Your task to perform on an android device: toggle priority inbox in the gmail app Image 0: 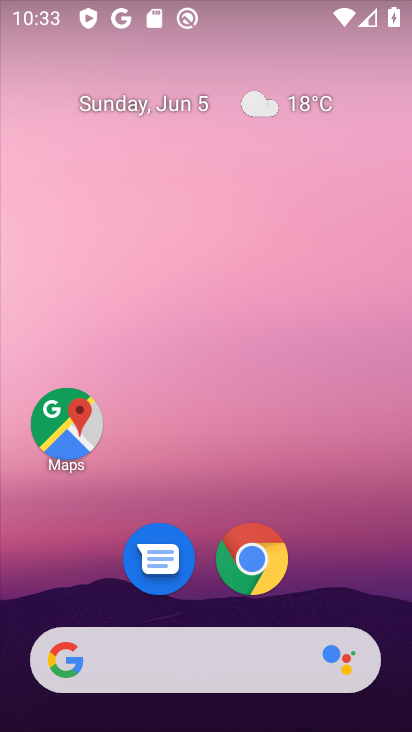
Step 0: drag from (269, 683) to (327, 26)
Your task to perform on an android device: toggle priority inbox in the gmail app Image 1: 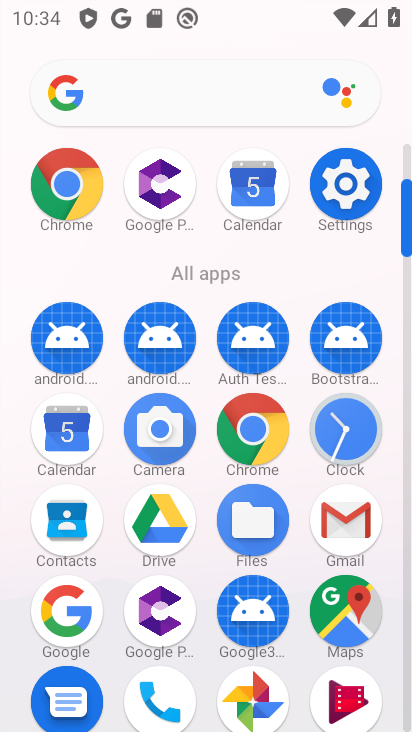
Step 1: click (341, 524)
Your task to perform on an android device: toggle priority inbox in the gmail app Image 2: 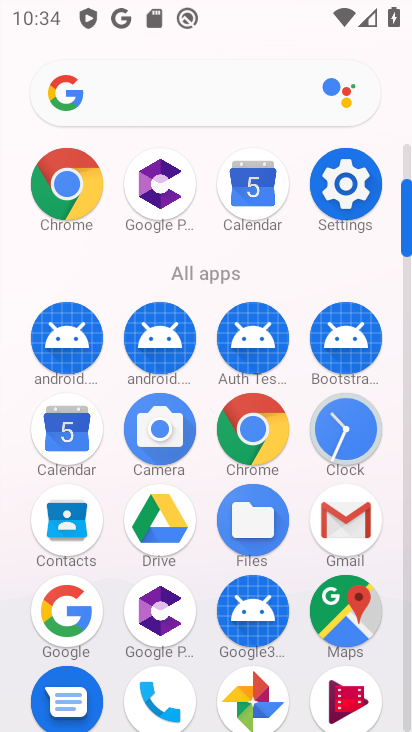
Step 2: click (340, 523)
Your task to perform on an android device: toggle priority inbox in the gmail app Image 3: 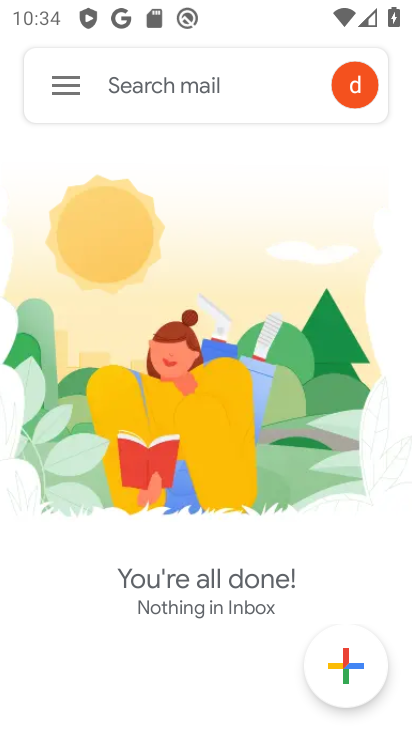
Step 3: click (72, 82)
Your task to perform on an android device: toggle priority inbox in the gmail app Image 4: 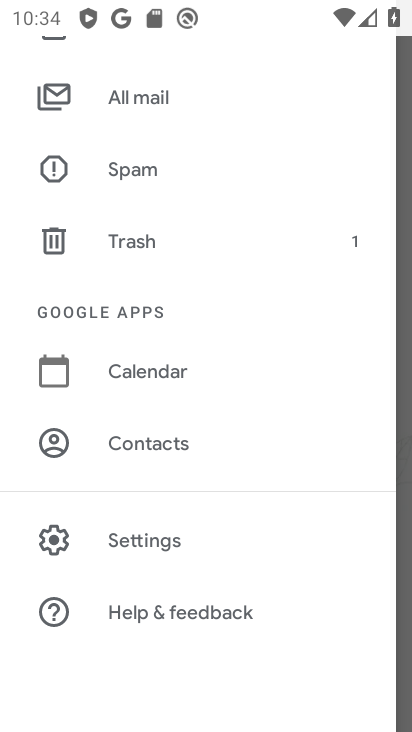
Step 4: click (143, 539)
Your task to perform on an android device: toggle priority inbox in the gmail app Image 5: 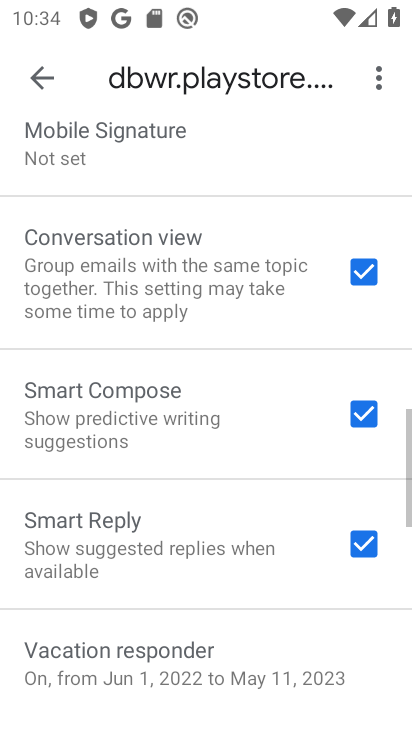
Step 5: drag from (122, 528) to (167, 45)
Your task to perform on an android device: toggle priority inbox in the gmail app Image 6: 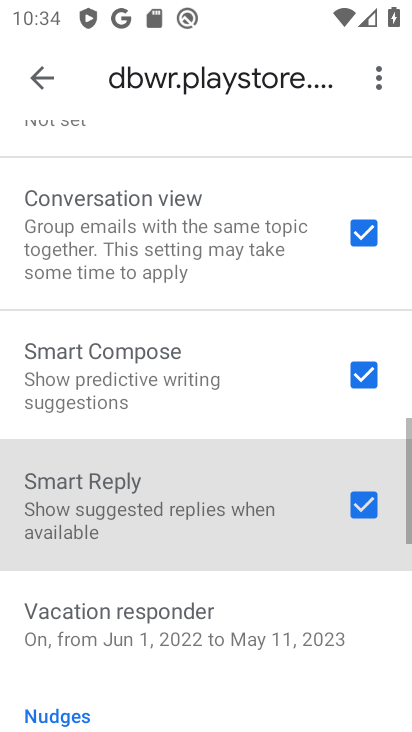
Step 6: drag from (139, 471) to (124, 161)
Your task to perform on an android device: toggle priority inbox in the gmail app Image 7: 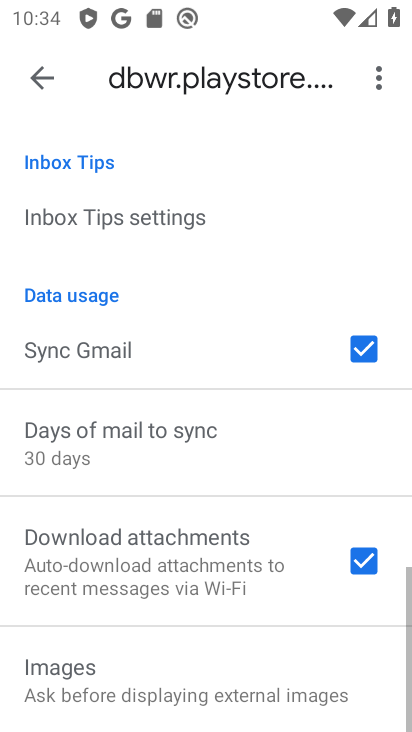
Step 7: drag from (88, 180) to (127, 723)
Your task to perform on an android device: toggle priority inbox in the gmail app Image 8: 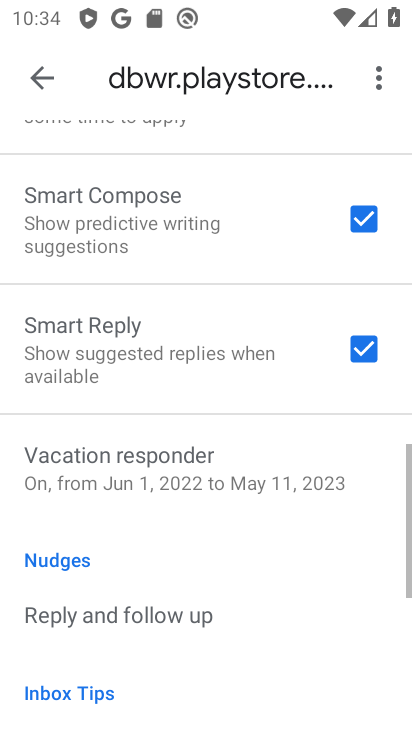
Step 8: drag from (145, 242) to (192, 502)
Your task to perform on an android device: toggle priority inbox in the gmail app Image 9: 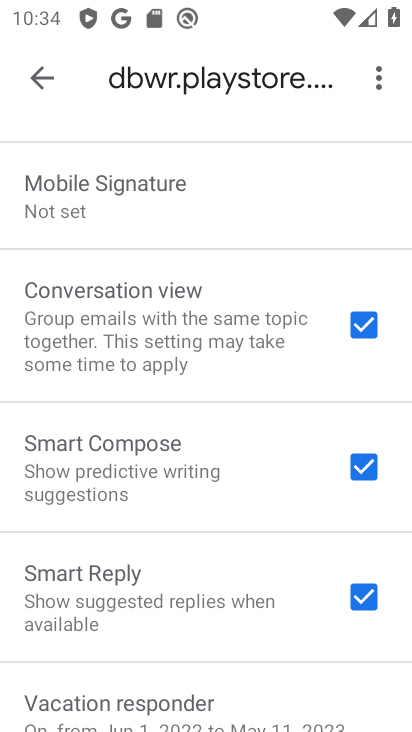
Step 9: drag from (103, 213) to (158, 492)
Your task to perform on an android device: toggle priority inbox in the gmail app Image 10: 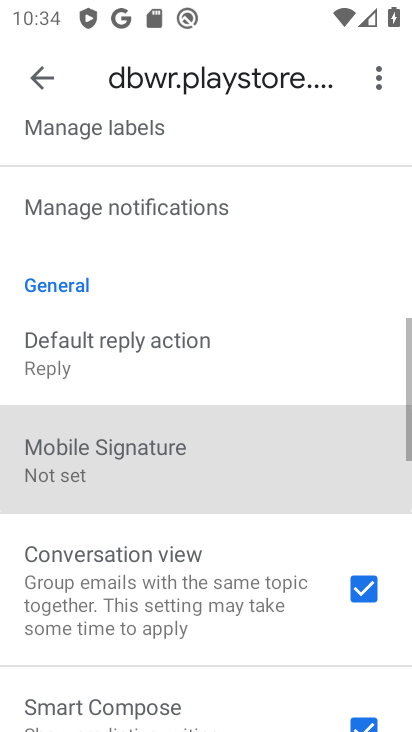
Step 10: drag from (167, 214) to (194, 572)
Your task to perform on an android device: toggle priority inbox in the gmail app Image 11: 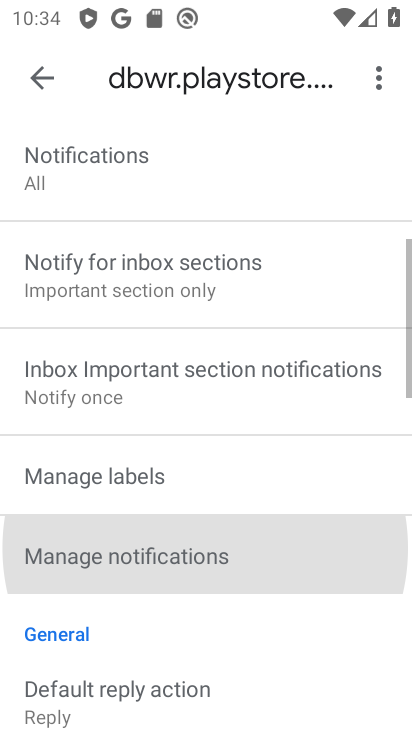
Step 11: drag from (150, 214) to (154, 528)
Your task to perform on an android device: toggle priority inbox in the gmail app Image 12: 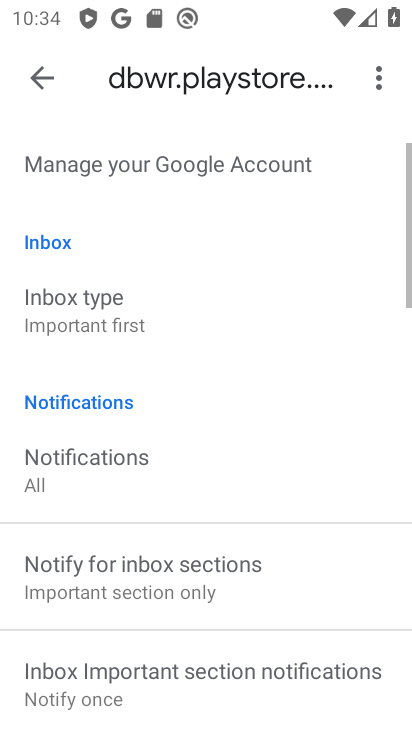
Step 12: click (67, 303)
Your task to perform on an android device: toggle priority inbox in the gmail app Image 13: 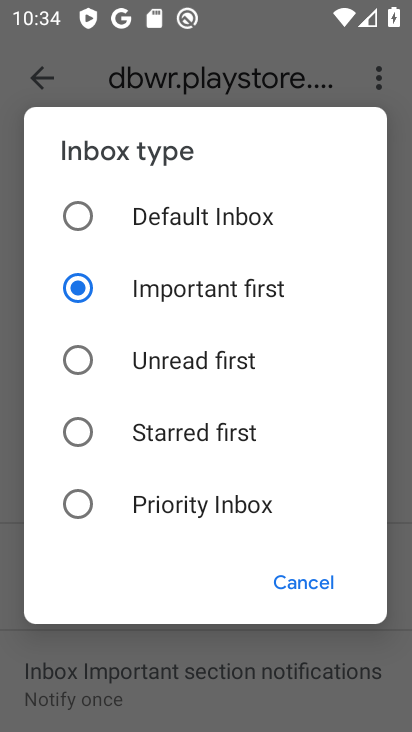
Step 13: click (76, 501)
Your task to perform on an android device: toggle priority inbox in the gmail app Image 14: 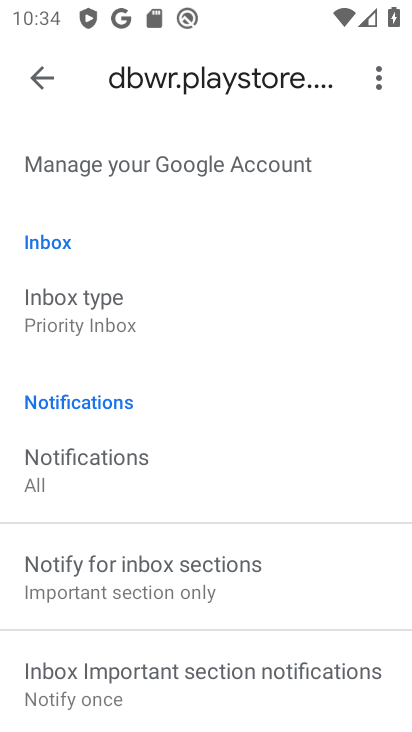
Step 14: task complete